Your task to perform on an android device: What's the news in Peru? Image 0: 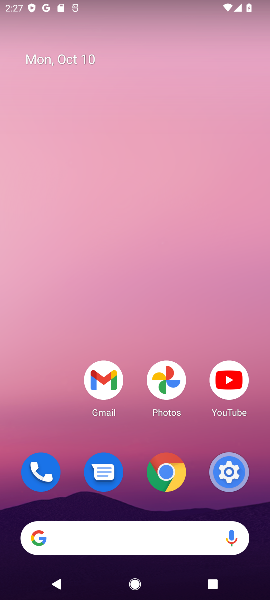
Step 0: drag from (125, 440) to (102, 28)
Your task to perform on an android device: What's the news in Peru? Image 1: 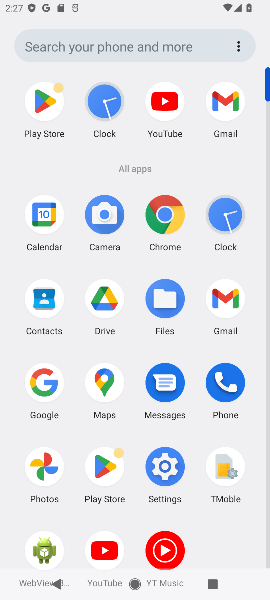
Step 1: click (33, 387)
Your task to perform on an android device: What's the news in Peru? Image 2: 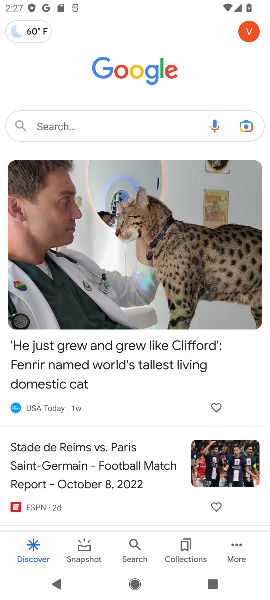
Step 2: click (41, 119)
Your task to perform on an android device: What's the news in Peru? Image 3: 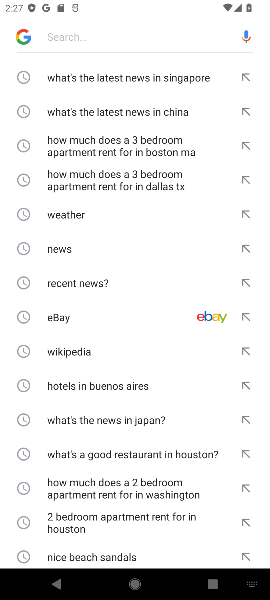
Step 3: type "What's the news in Peru"
Your task to perform on an android device: What's the news in Peru? Image 4: 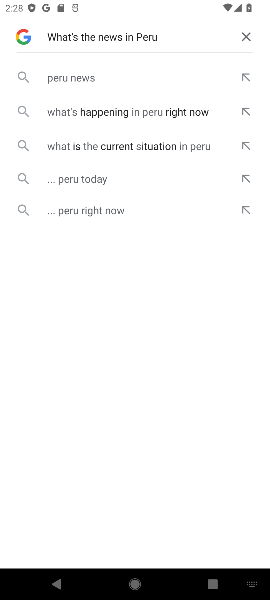
Step 4: click (79, 84)
Your task to perform on an android device: What's the news in Peru? Image 5: 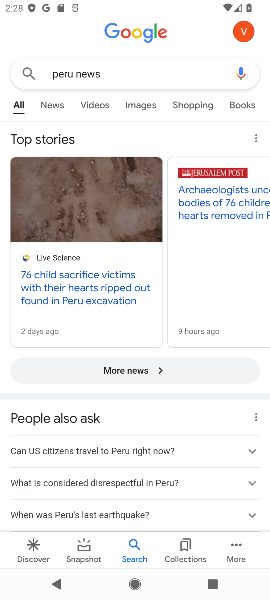
Step 5: task complete